Your task to perform on an android device: change the clock style Image 0: 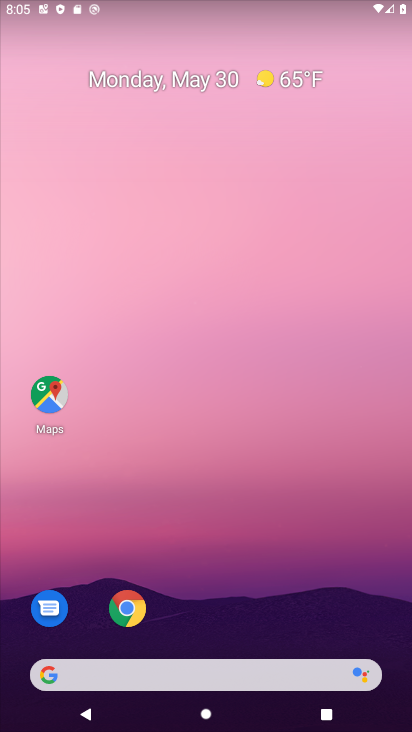
Step 0: drag from (214, 640) to (177, 208)
Your task to perform on an android device: change the clock style Image 1: 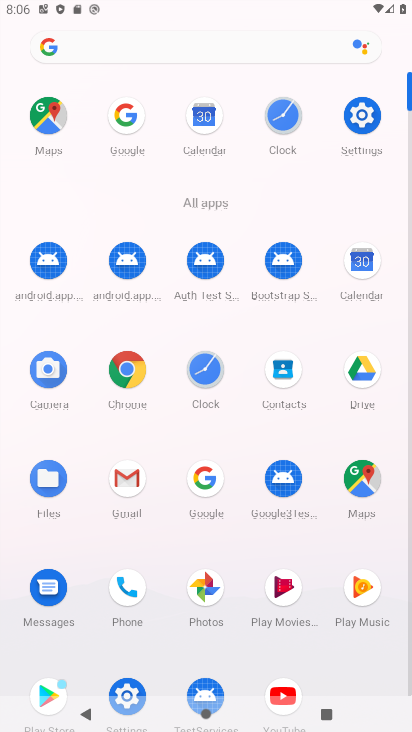
Step 1: click (288, 133)
Your task to perform on an android device: change the clock style Image 2: 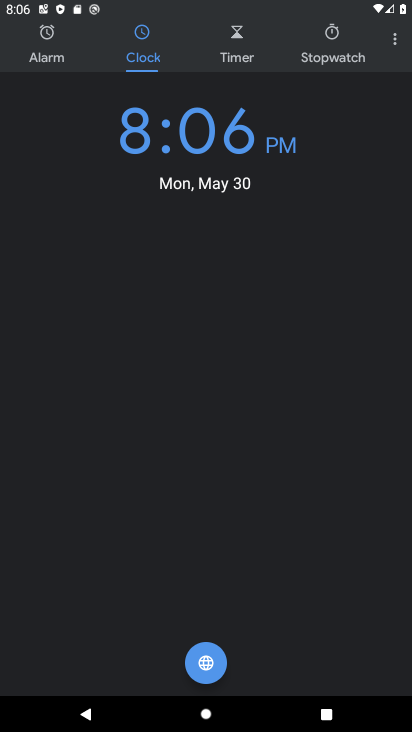
Step 2: click (401, 47)
Your task to perform on an android device: change the clock style Image 3: 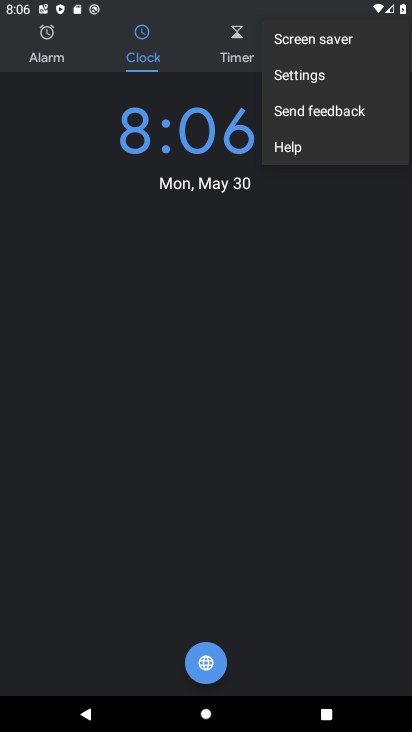
Step 3: click (308, 66)
Your task to perform on an android device: change the clock style Image 4: 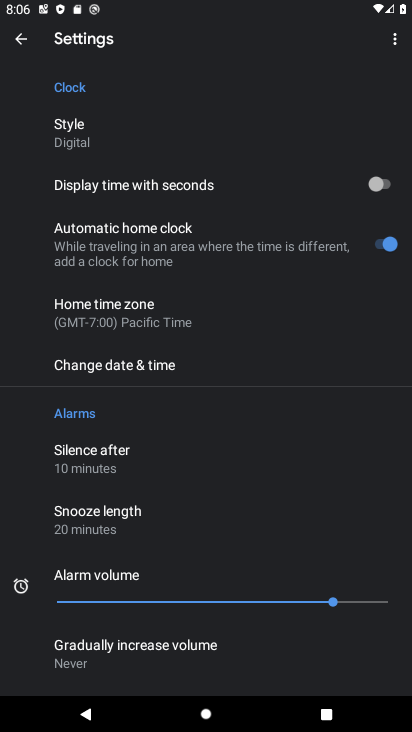
Step 4: click (83, 135)
Your task to perform on an android device: change the clock style Image 5: 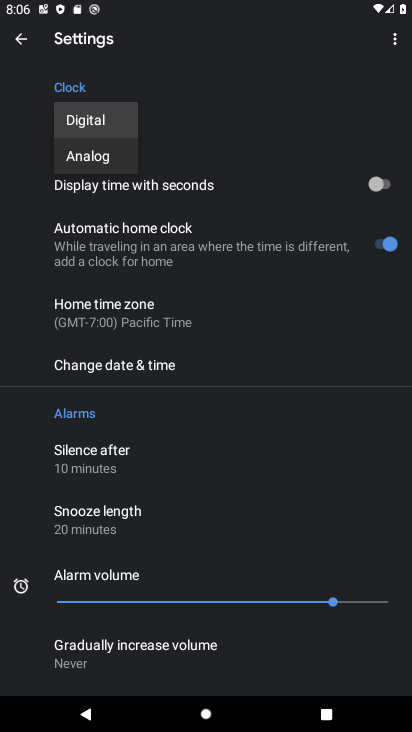
Step 5: click (95, 148)
Your task to perform on an android device: change the clock style Image 6: 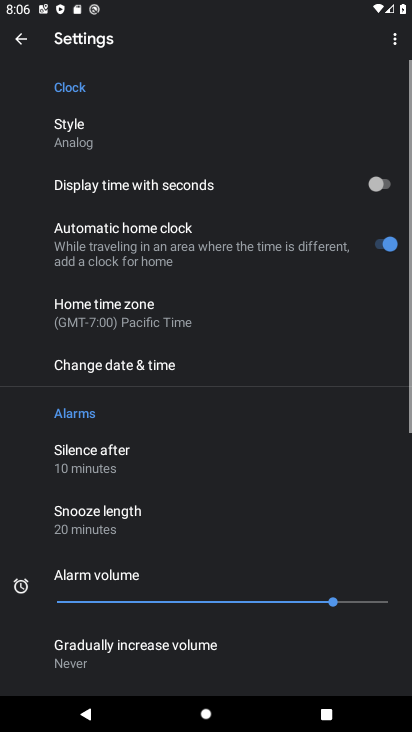
Step 6: task complete